Your task to perform on an android device: Search for coffee table on Crate & Barrel Image 0: 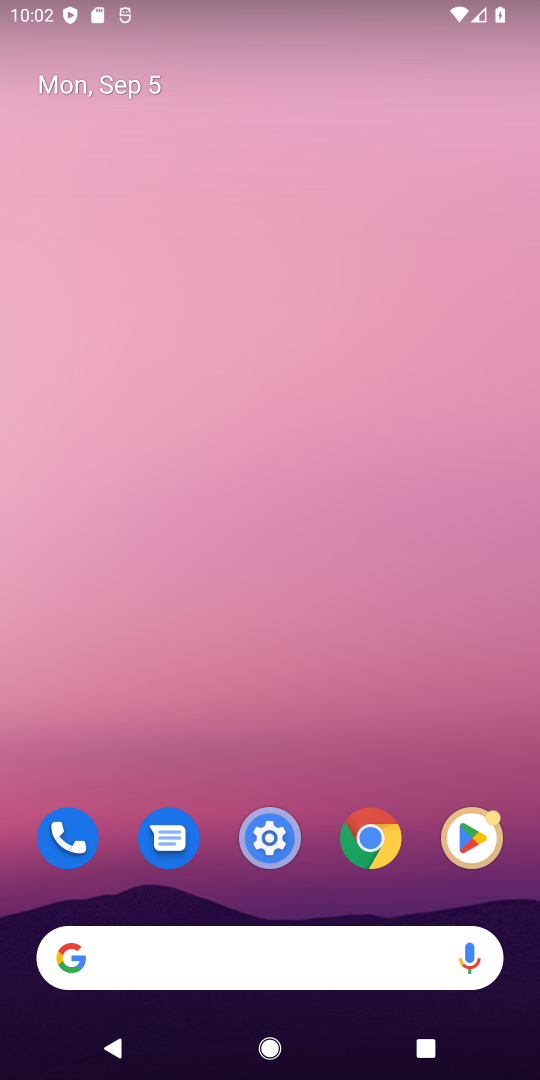
Step 0: click (224, 944)
Your task to perform on an android device: Search for coffee table on Crate & Barrel Image 1: 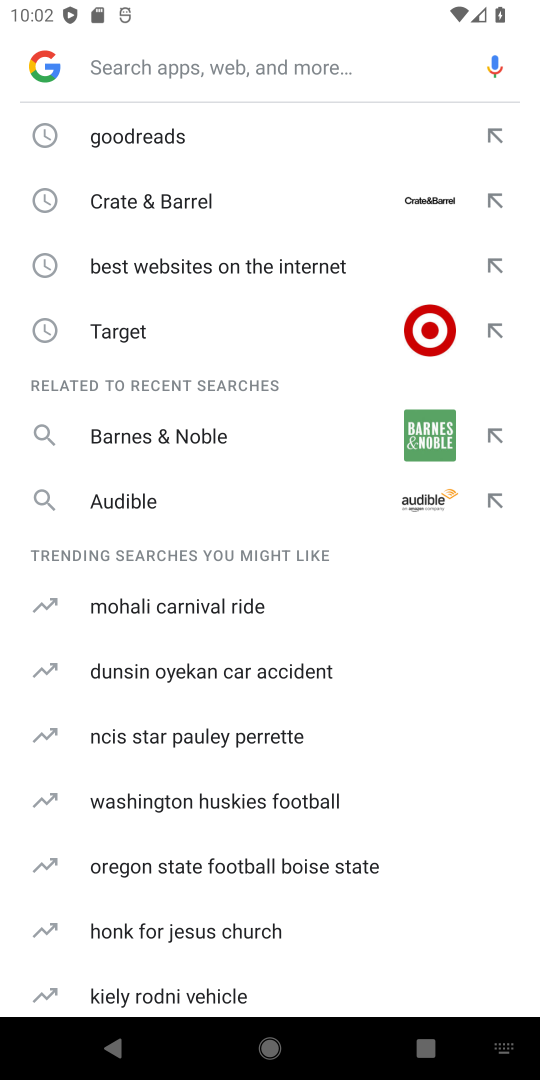
Step 1: click (115, 188)
Your task to perform on an android device: Search for coffee table on Crate & Barrel Image 2: 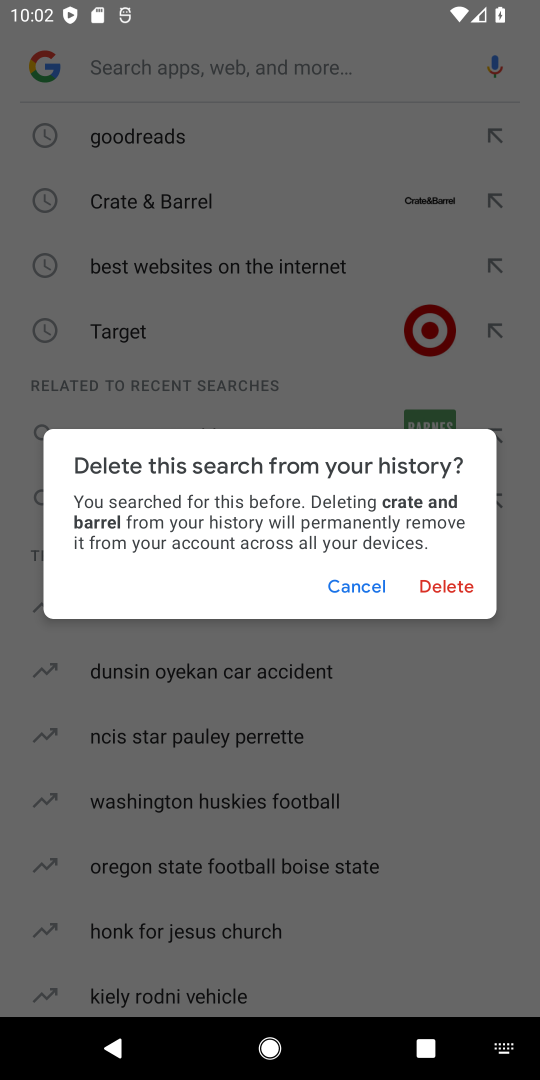
Step 2: click (348, 570)
Your task to perform on an android device: Search for coffee table on Crate & Barrel Image 3: 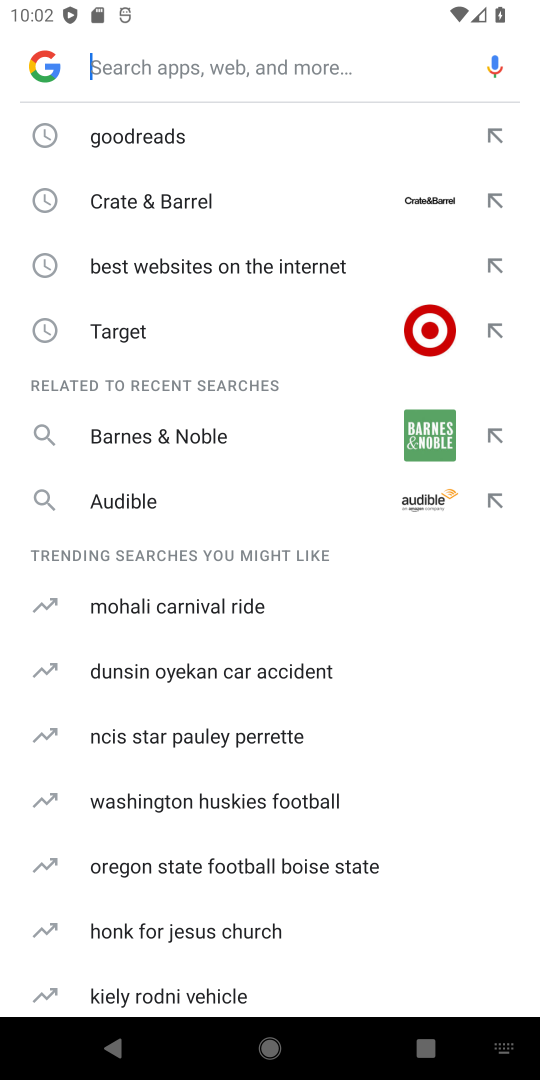
Step 3: click (217, 210)
Your task to perform on an android device: Search for coffee table on Crate & Barrel Image 4: 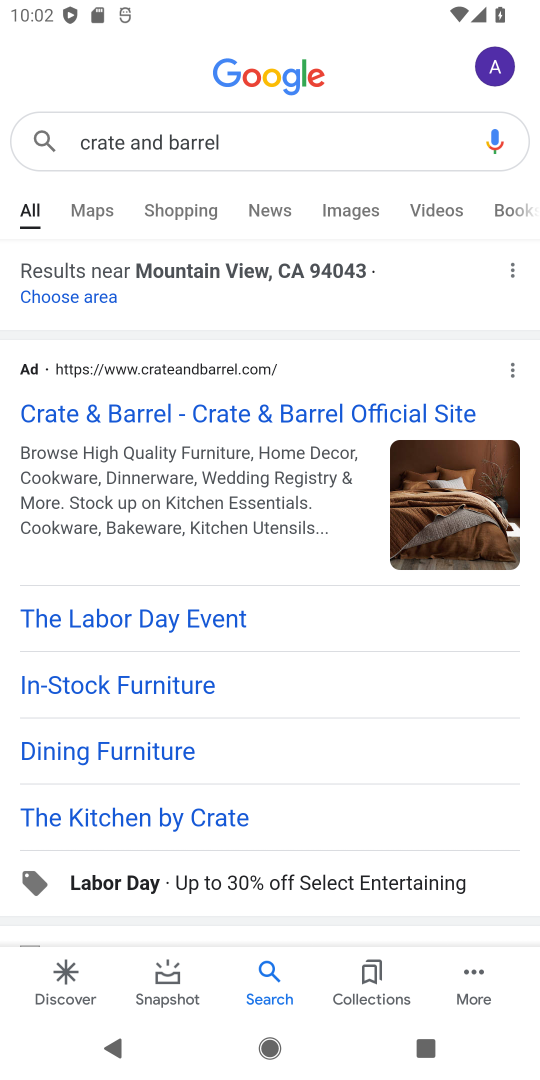
Step 4: drag from (479, 756) to (535, 489)
Your task to perform on an android device: Search for coffee table on Crate & Barrel Image 5: 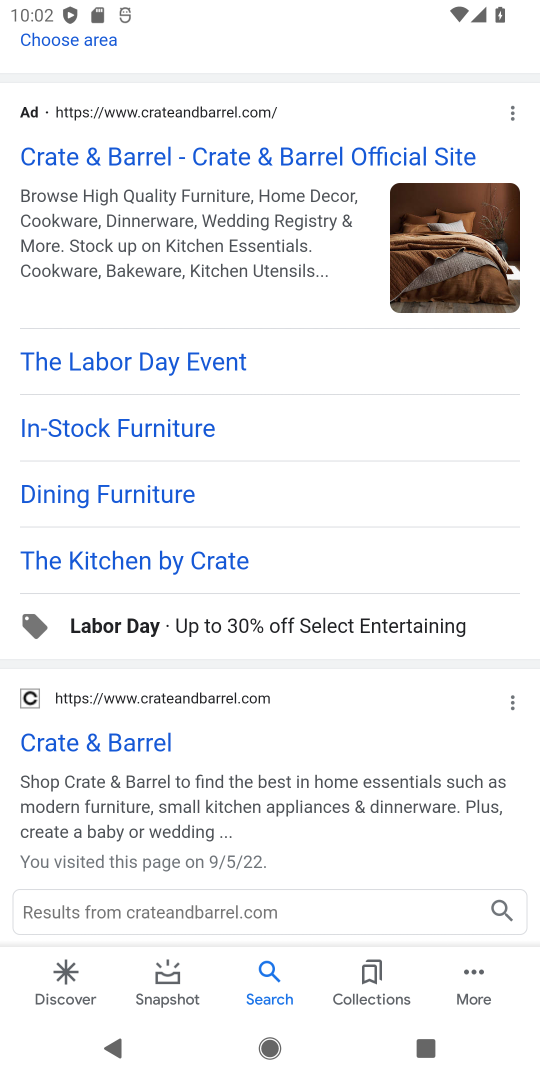
Step 5: drag from (212, 403) to (166, 174)
Your task to perform on an android device: Search for coffee table on Crate & Barrel Image 6: 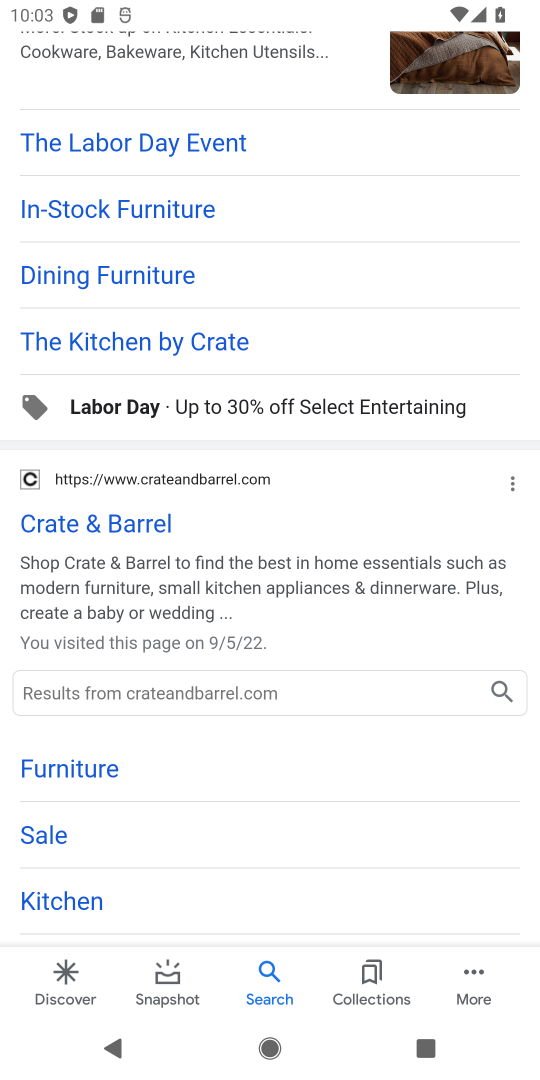
Step 6: click (101, 531)
Your task to perform on an android device: Search for coffee table on Crate & Barrel Image 7: 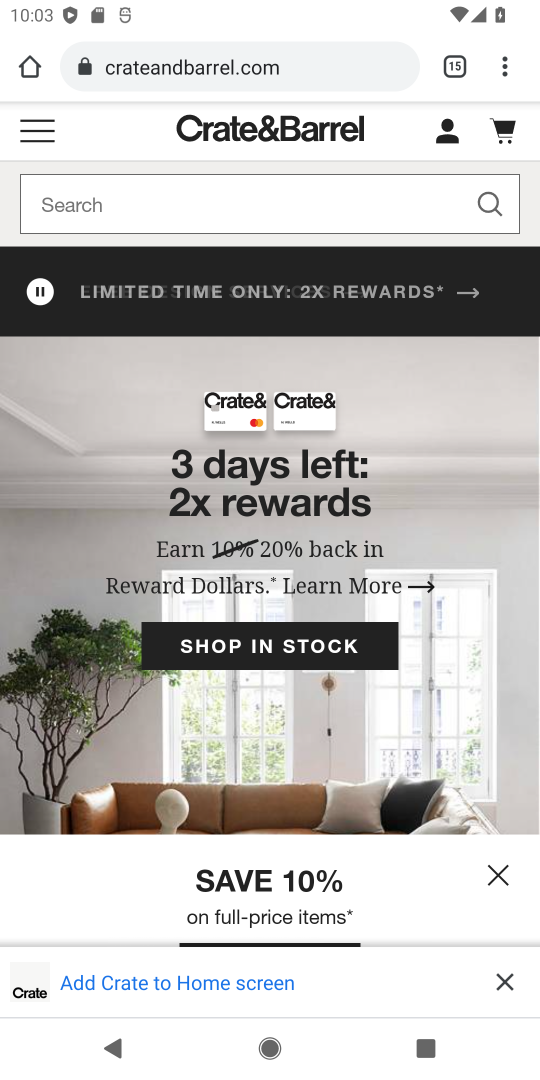
Step 7: click (296, 205)
Your task to perform on an android device: Search for coffee table on Crate & Barrel Image 8: 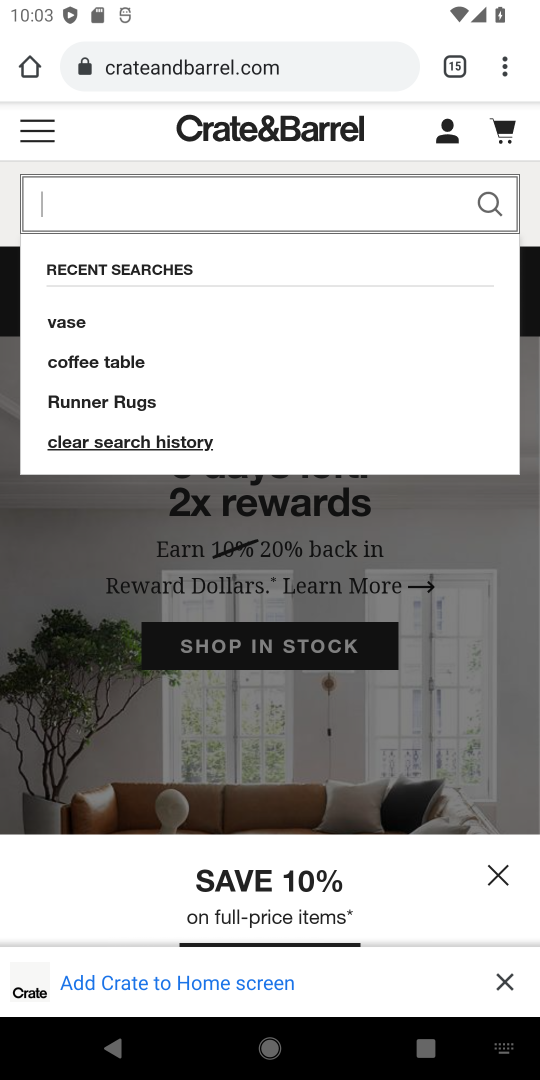
Step 8: click (142, 367)
Your task to perform on an android device: Search for coffee table on Crate & Barrel Image 9: 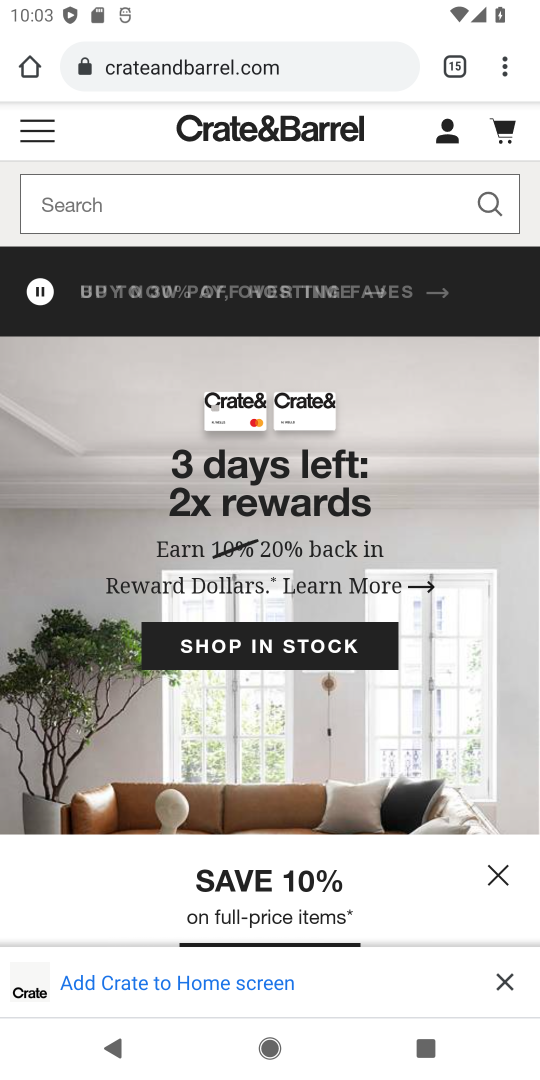
Step 9: click (228, 203)
Your task to perform on an android device: Search for coffee table on Crate & Barrel Image 10: 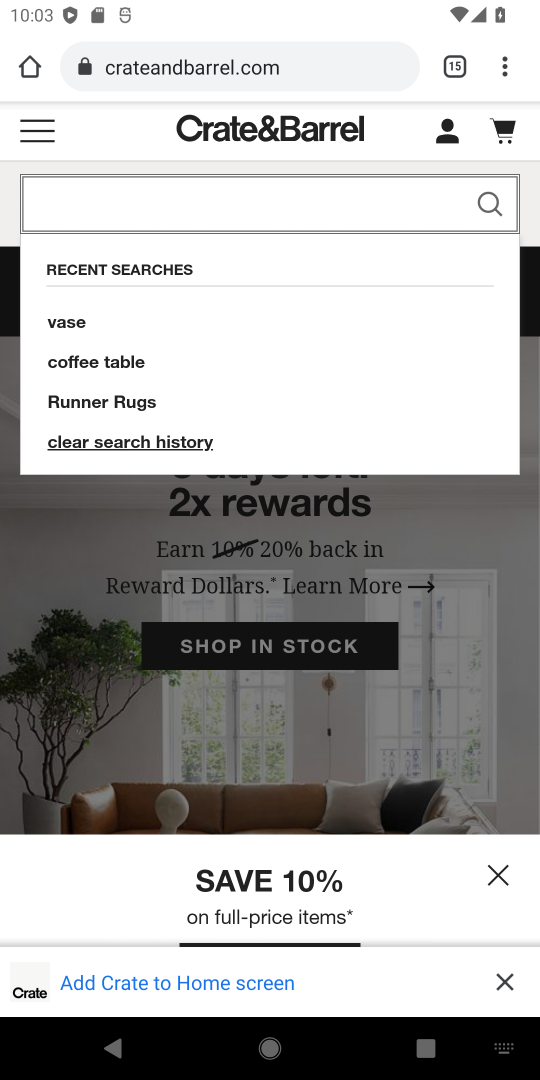
Step 10: click (128, 354)
Your task to perform on an android device: Search for coffee table on Crate & Barrel Image 11: 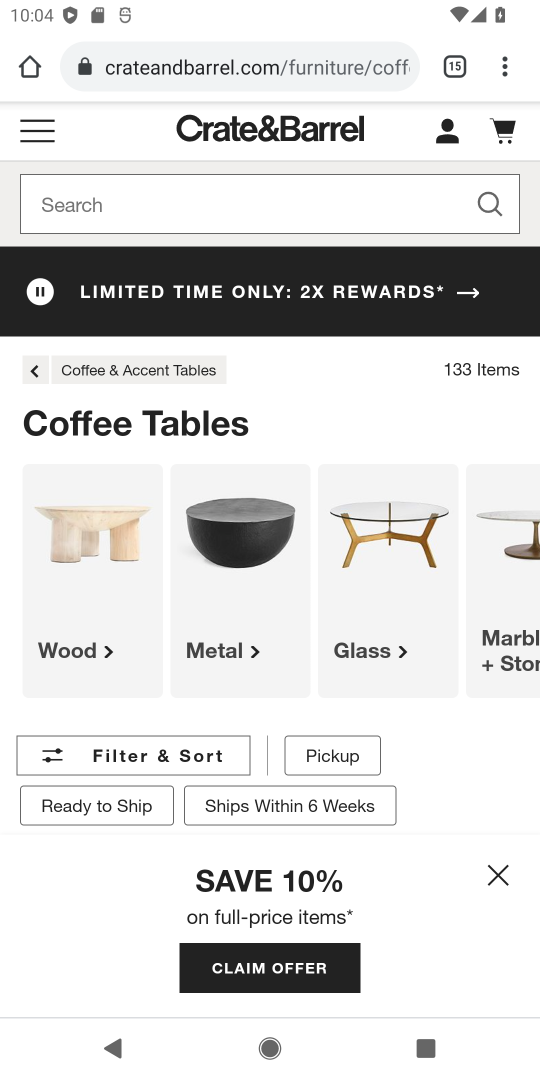
Step 11: task complete